Your task to perform on an android device: Open calendar and show me the fourth week of next month Image 0: 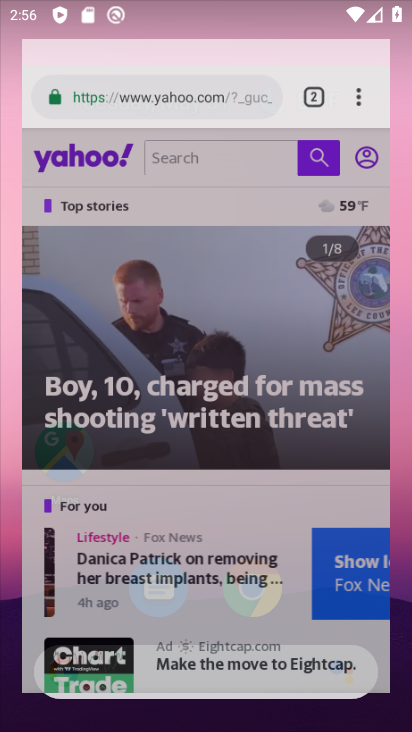
Step 0: click (82, 452)
Your task to perform on an android device: Open calendar and show me the fourth week of next month Image 1: 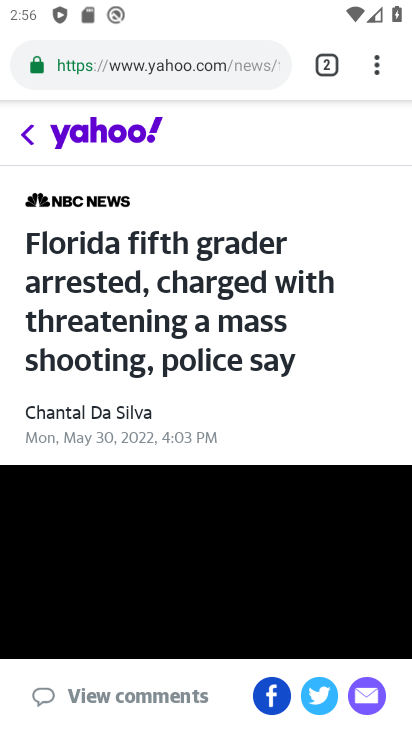
Step 1: press home button
Your task to perform on an android device: Open calendar and show me the fourth week of next month Image 2: 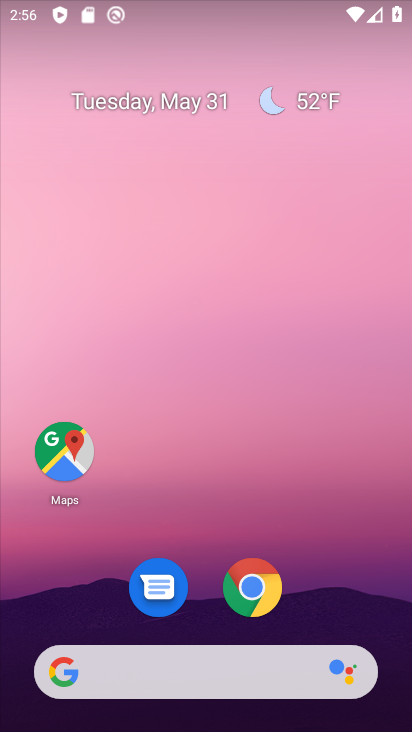
Step 2: drag from (372, 564) to (250, 69)
Your task to perform on an android device: Open calendar and show me the fourth week of next month Image 3: 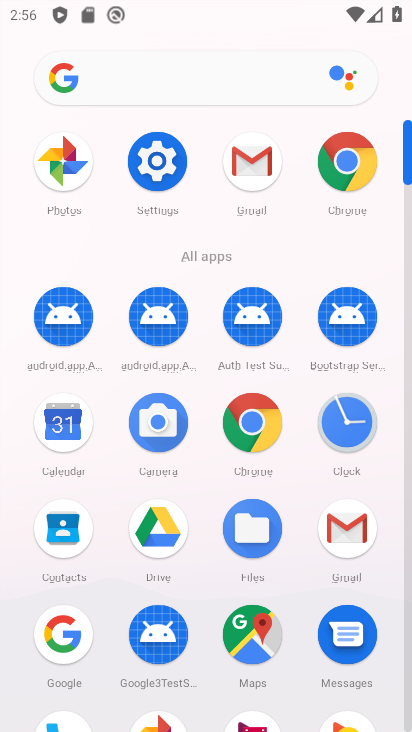
Step 3: click (61, 436)
Your task to perform on an android device: Open calendar and show me the fourth week of next month Image 4: 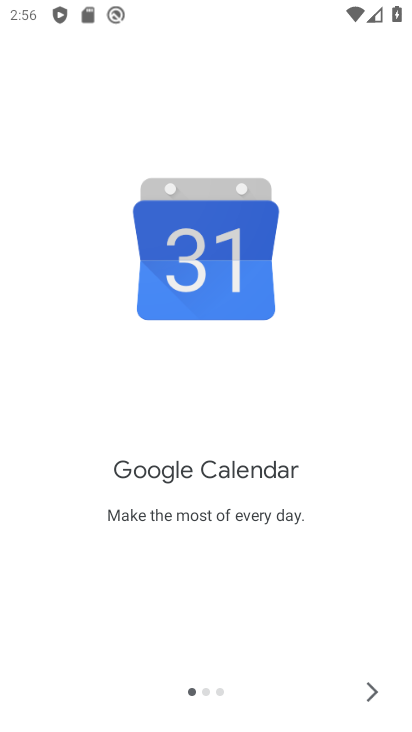
Step 4: click (380, 686)
Your task to perform on an android device: Open calendar and show me the fourth week of next month Image 5: 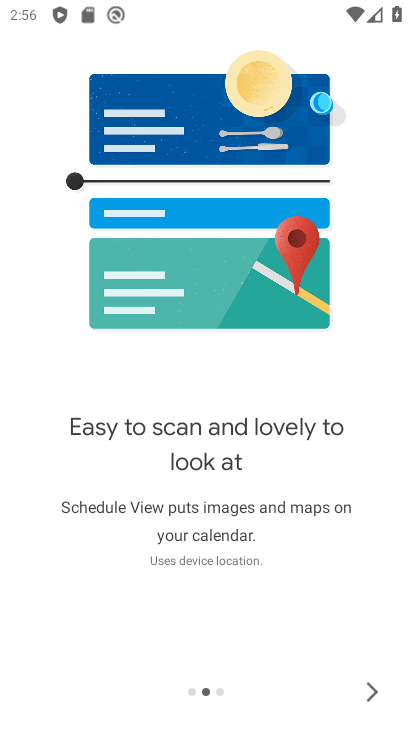
Step 5: click (380, 686)
Your task to perform on an android device: Open calendar and show me the fourth week of next month Image 6: 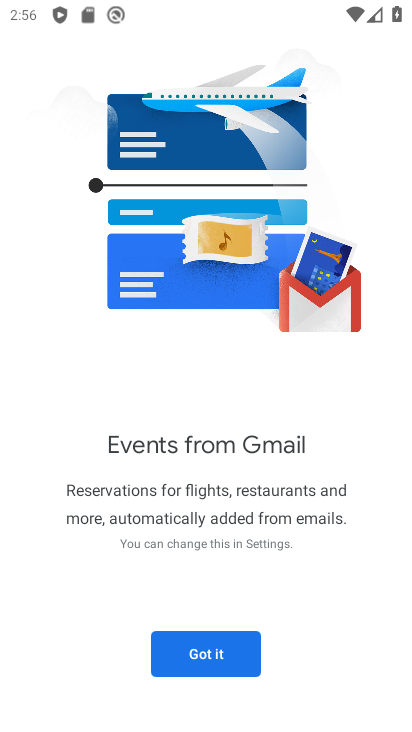
Step 6: click (244, 663)
Your task to perform on an android device: Open calendar and show me the fourth week of next month Image 7: 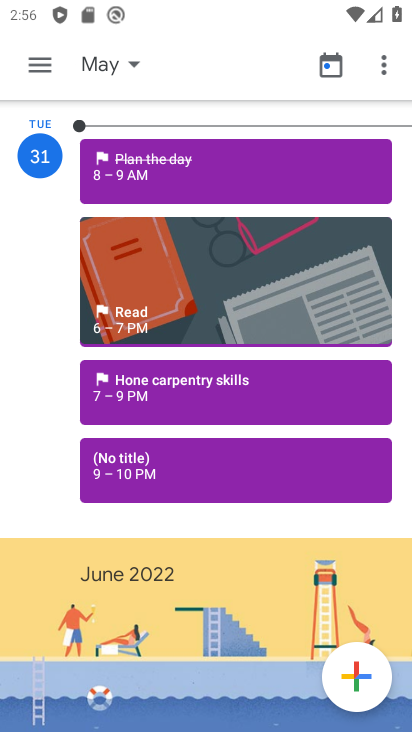
Step 7: click (105, 63)
Your task to perform on an android device: Open calendar and show me the fourth week of next month Image 8: 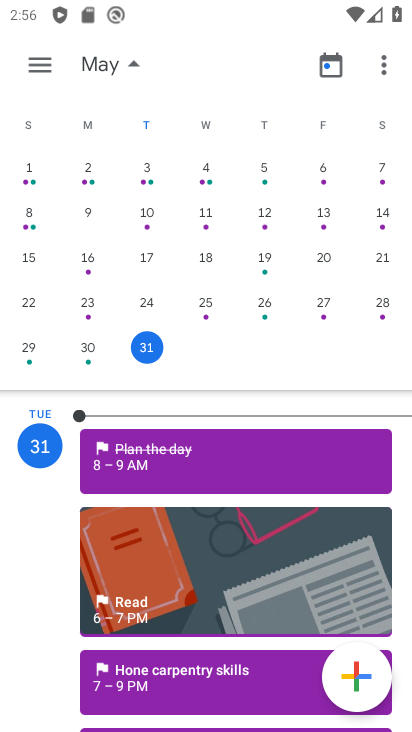
Step 8: drag from (399, 275) to (2, 277)
Your task to perform on an android device: Open calendar and show me the fourth week of next month Image 9: 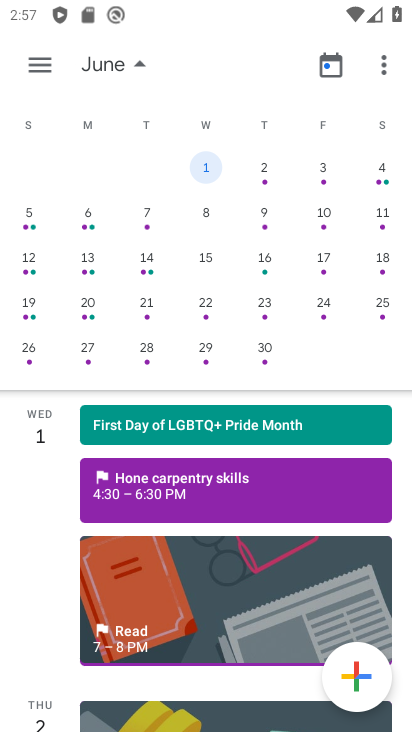
Step 9: click (210, 306)
Your task to perform on an android device: Open calendar and show me the fourth week of next month Image 10: 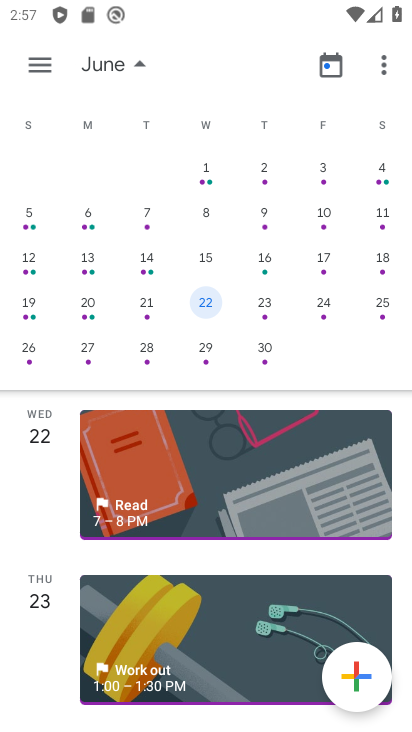
Step 10: click (137, 58)
Your task to perform on an android device: Open calendar and show me the fourth week of next month Image 11: 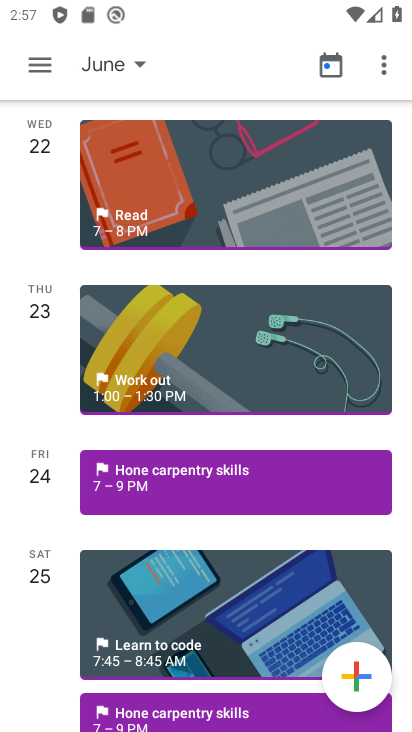
Step 11: click (39, 69)
Your task to perform on an android device: Open calendar and show me the fourth week of next month Image 12: 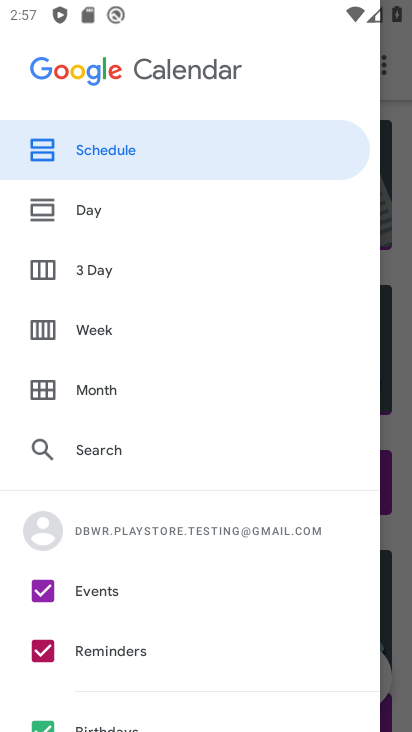
Step 12: click (115, 330)
Your task to perform on an android device: Open calendar and show me the fourth week of next month Image 13: 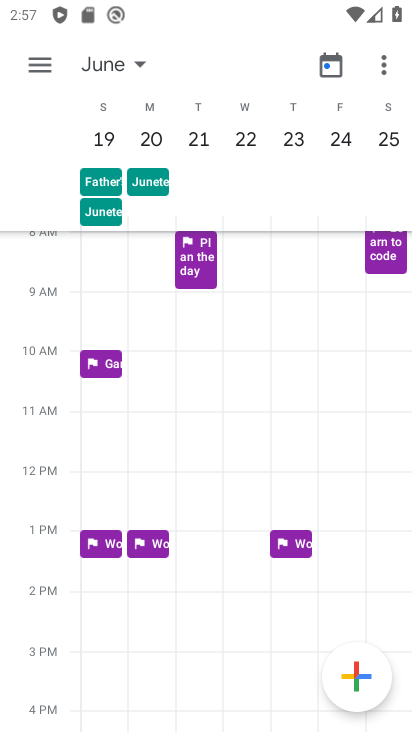
Step 13: task complete